Your task to perform on an android device: turn notification dots on Image 0: 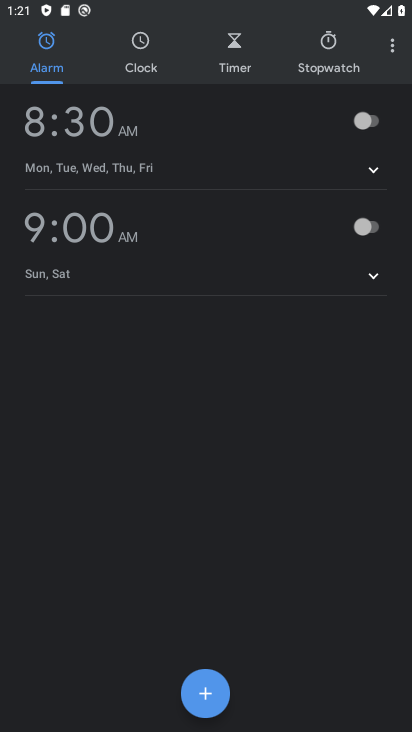
Step 0: press back button
Your task to perform on an android device: turn notification dots on Image 1: 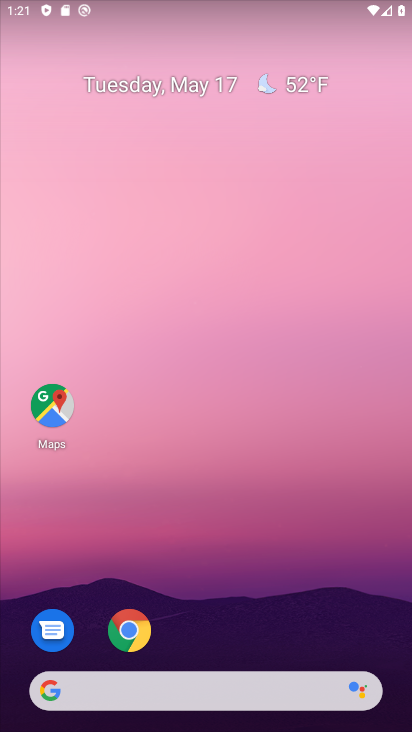
Step 1: drag from (234, 632) to (268, 54)
Your task to perform on an android device: turn notification dots on Image 2: 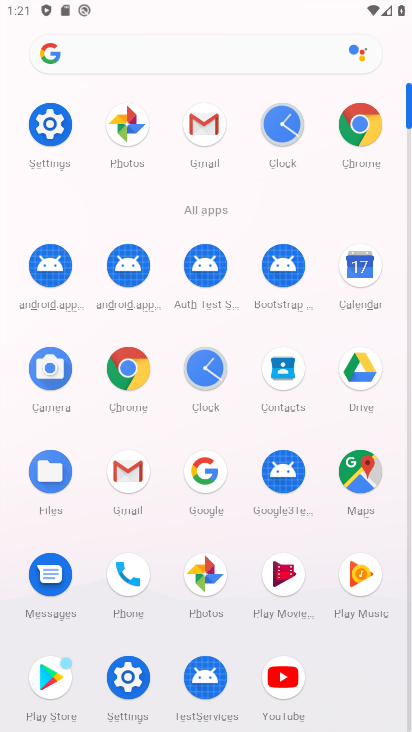
Step 2: click (50, 117)
Your task to perform on an android device: turn notification dots on Image 3: 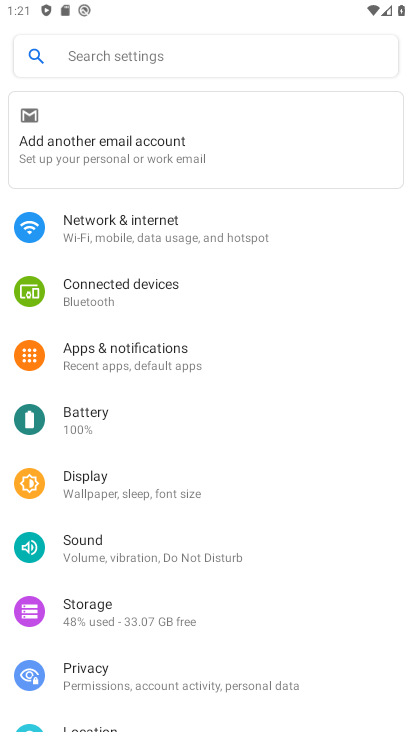
Step 3: click (173, 349)
Your task to perform on an android device: turn notification dots on Image 4: 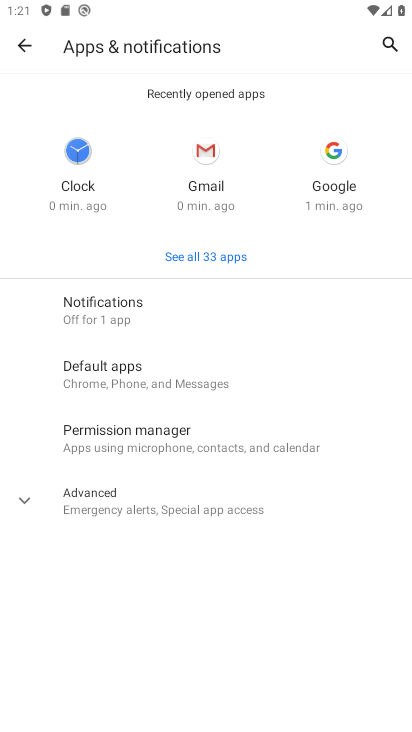
Step 4: click (141, 311)
Your task to perform on an android device: turn notification dots on Image 5: 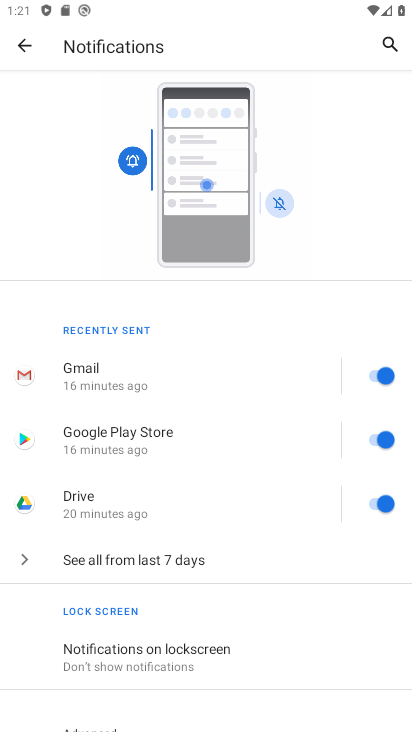
Step 5: drag from (201, 663) to (287, 137)
Your task to perform on an android device: turn notification dots on Image 6: 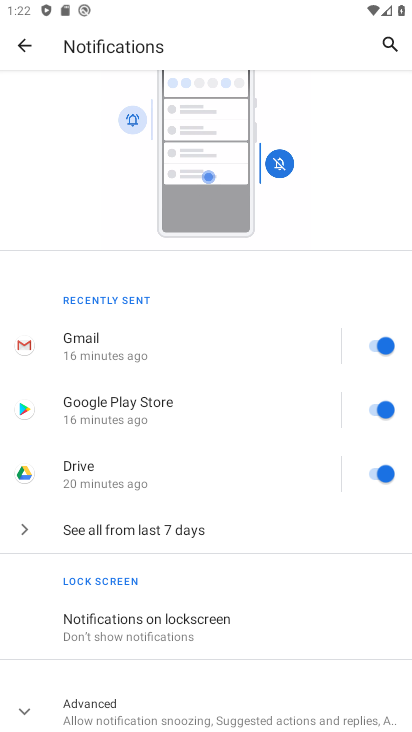
Step 6: drag from (195, 625) to (291, 230)
Your task to perform on an android device: turn notification dots on Image 7: 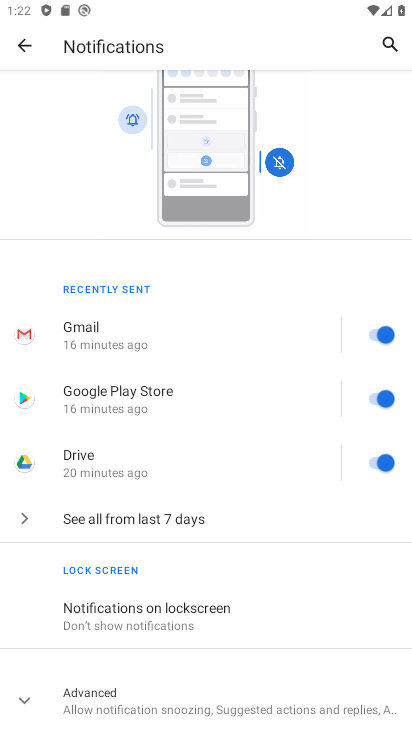
Step 7: click (182, 697)
Your task to perform on an android device: turn notification dots on Image 8: 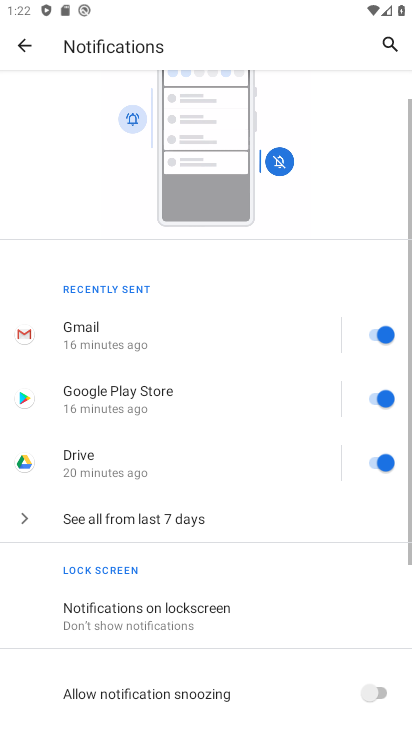
Step 8: task complete